Your task to perform on an android device: turn off data saver in the chrome app Image 0: 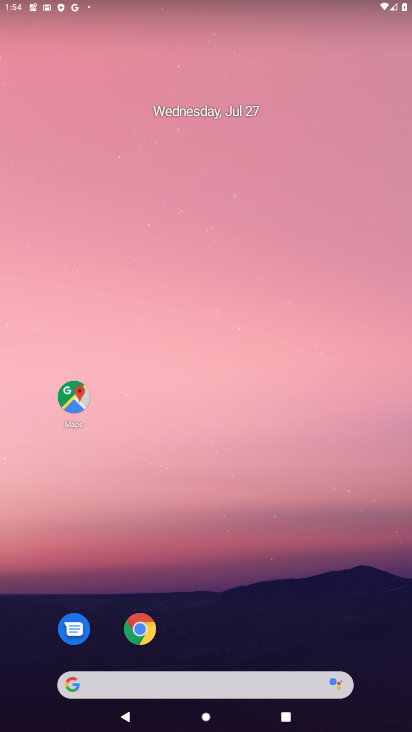
Step 0: click (154, 638)
Your task to perform on an android device: turn off data saver in the chrome app Image 1: 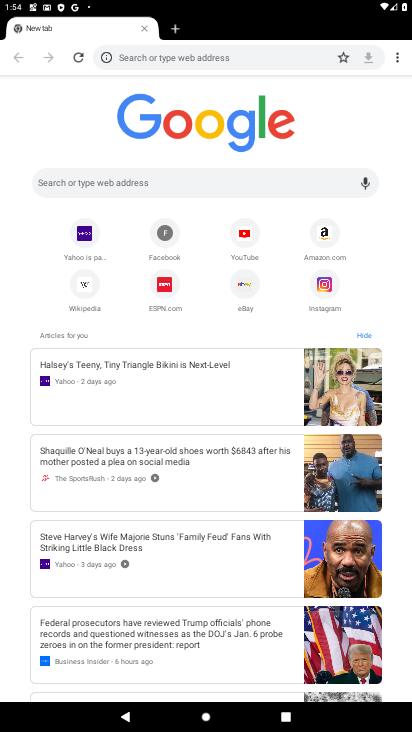
Step 1: click (398, 64)
Your task to perform on an android device: turn off data saver in the chrome app Image 2: 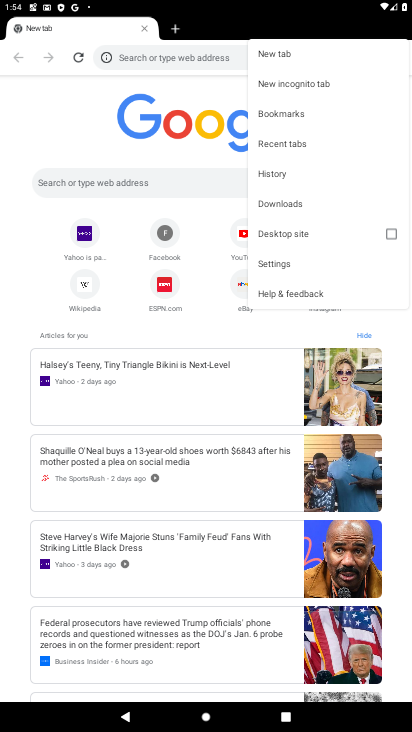
Step 2: click (293, 266)
Your task to perform on an android device: turn off data saver in the chrome app Image 3: 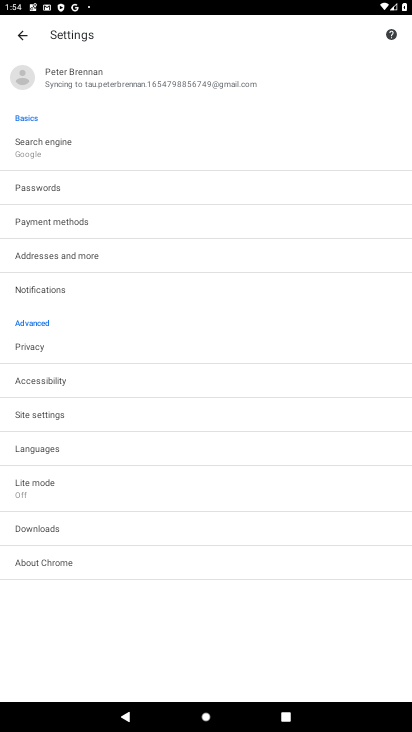
Step 3: click (109, 483)
Your task to perform on an android device: turn off data saver in the chrome app Image 4: 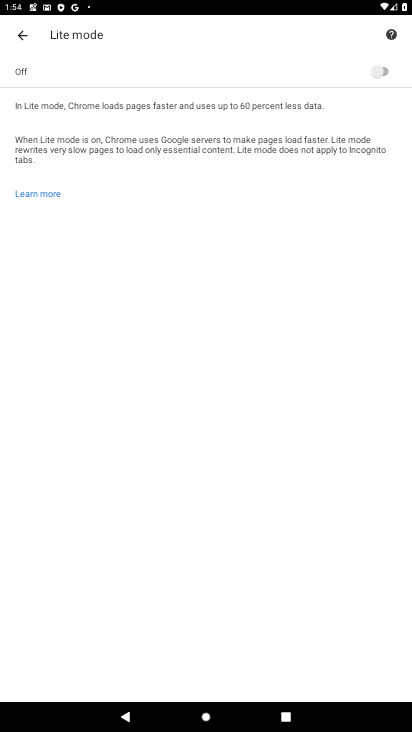
Step 4: task complete